Your task to perform on an android device: How much does a 3 bedroom apartment rent for in Boston? Image 0: 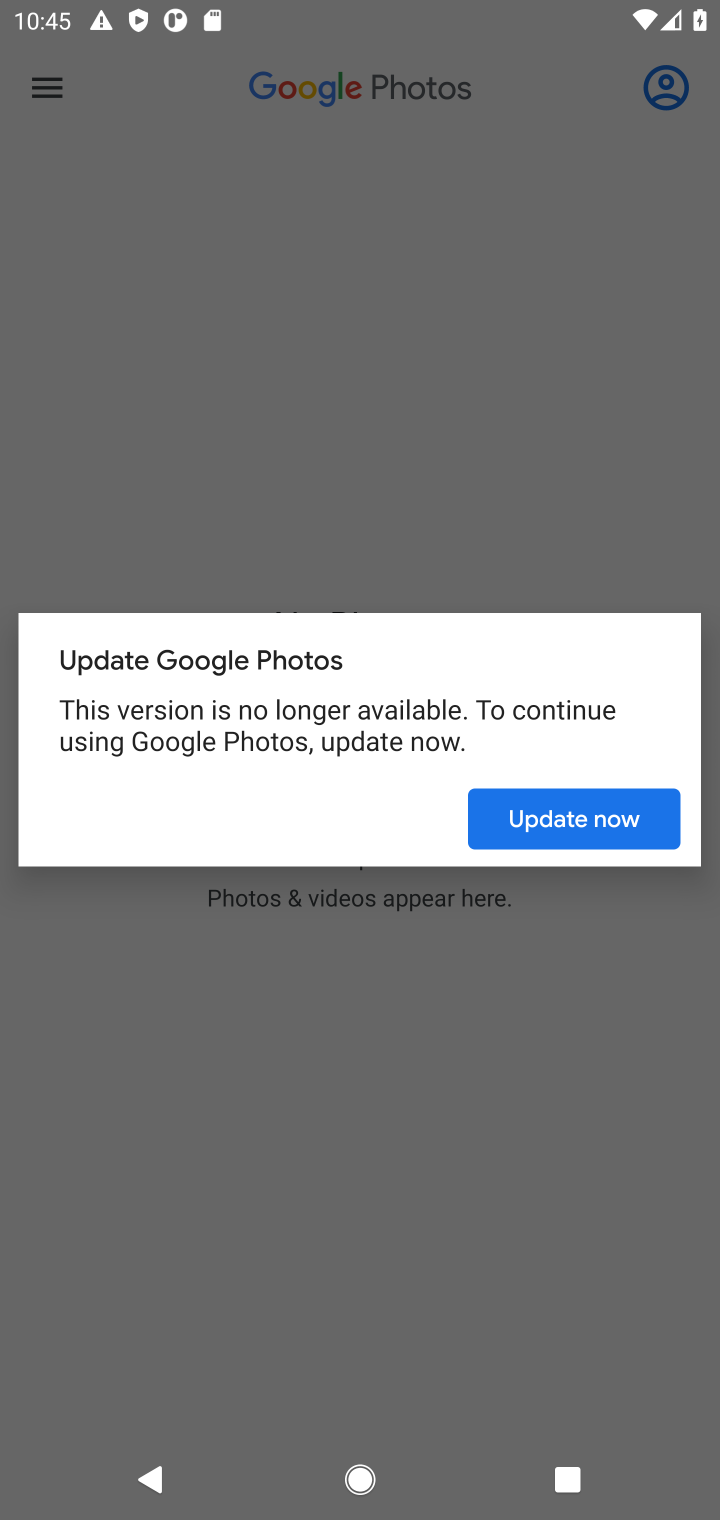
Step 0: click (610, 819)
Your task to perform on an android device: How much does a 3 bedroom apartment rent for in Boston? Image 1: 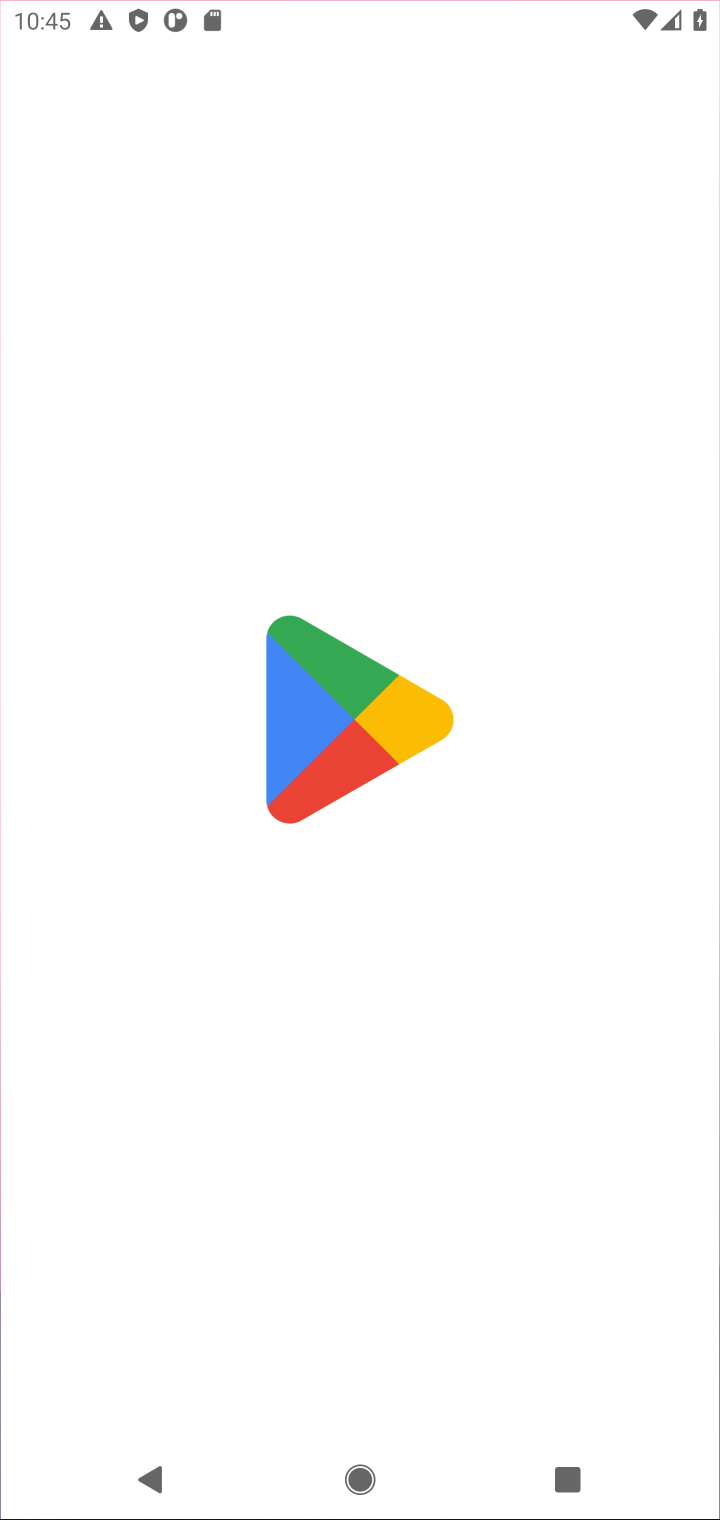
Step 1: press home button
Your task to perform on an android device: How much does a 3 bedroom apartment rent for in Boston? Image 2: 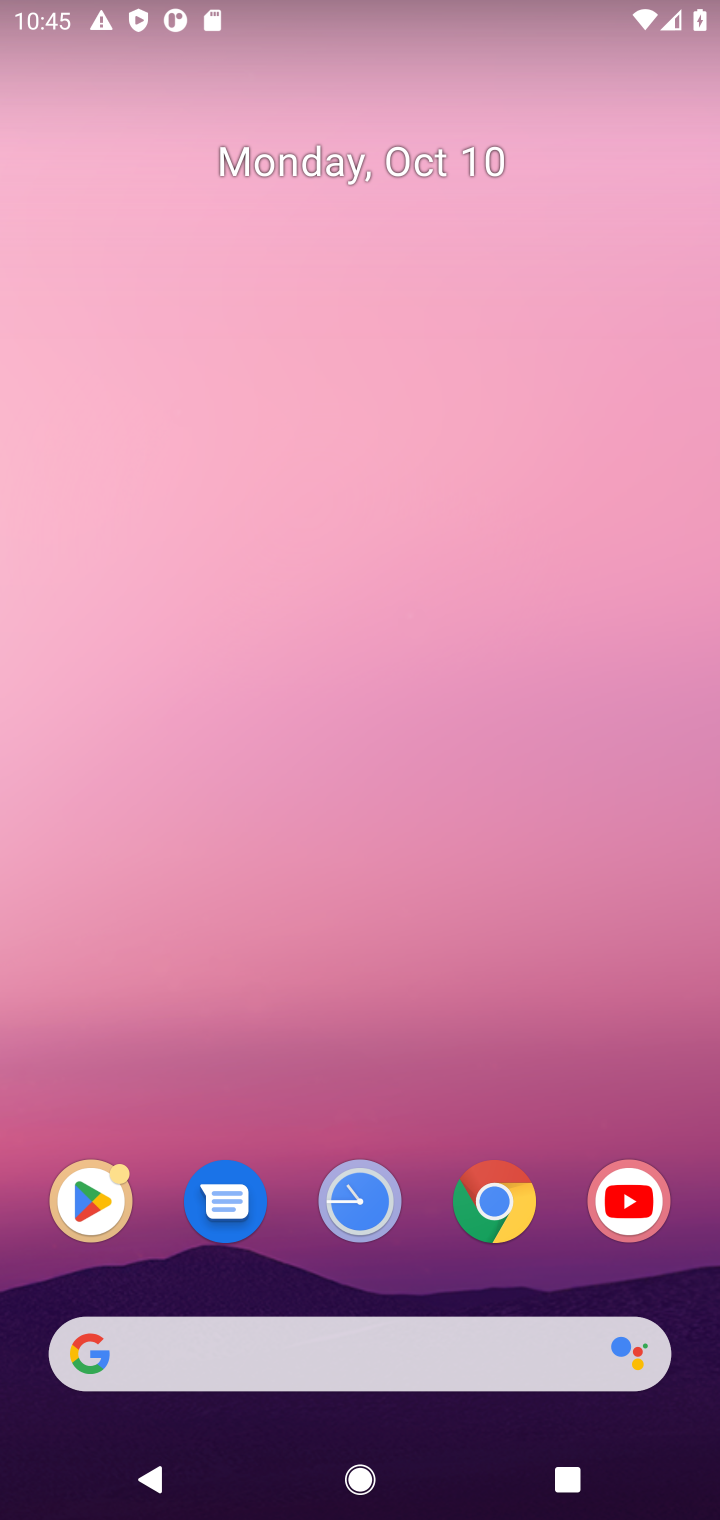
Step 2: click (84, 1353)
Your task to perform on an android device: How much does a 3 bedroom apartment rent for in Boston? Image 3: 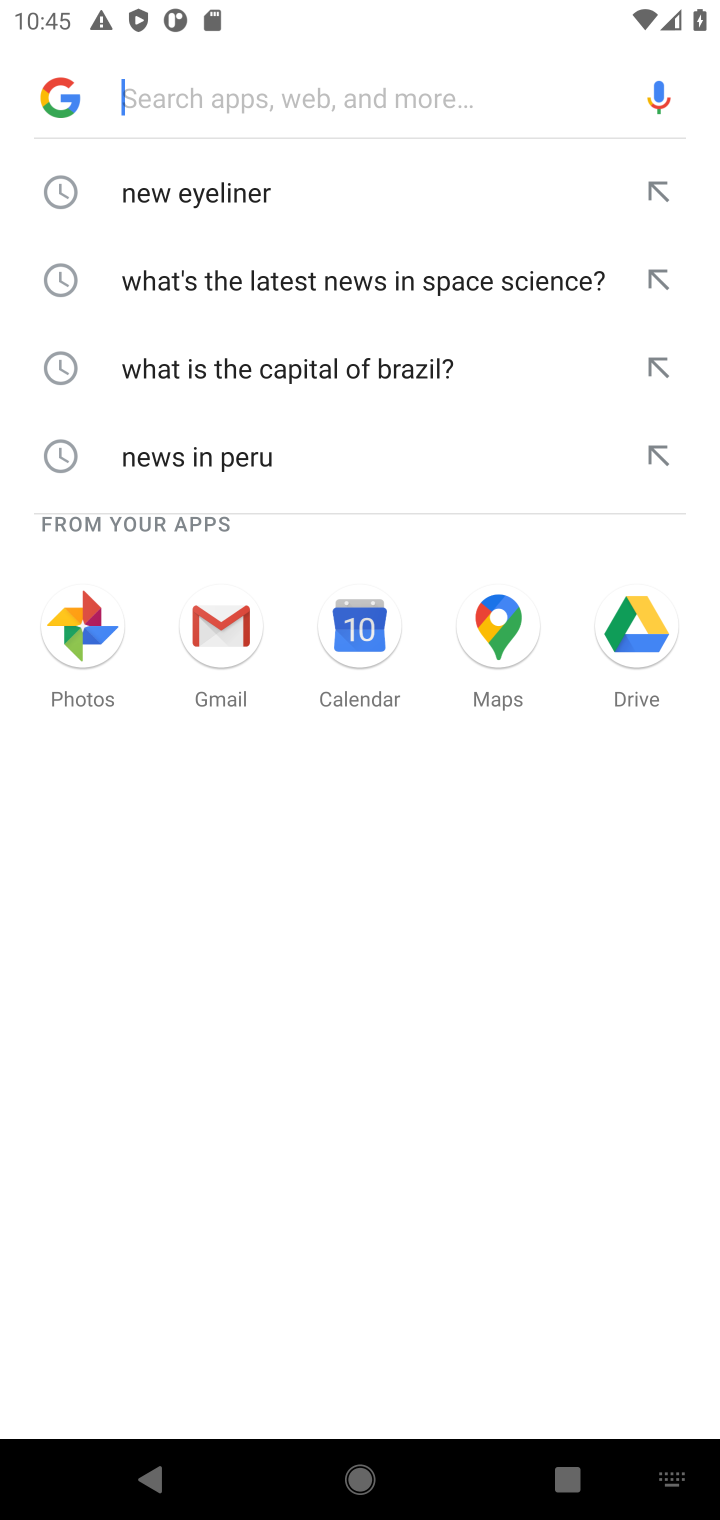
Step 3: type "How much does a 3 bedroom apartment rent for in Boston?"
Your task to perform on an android device: How much does a 3 bedroom apartment rent for in Boston? Image 4: 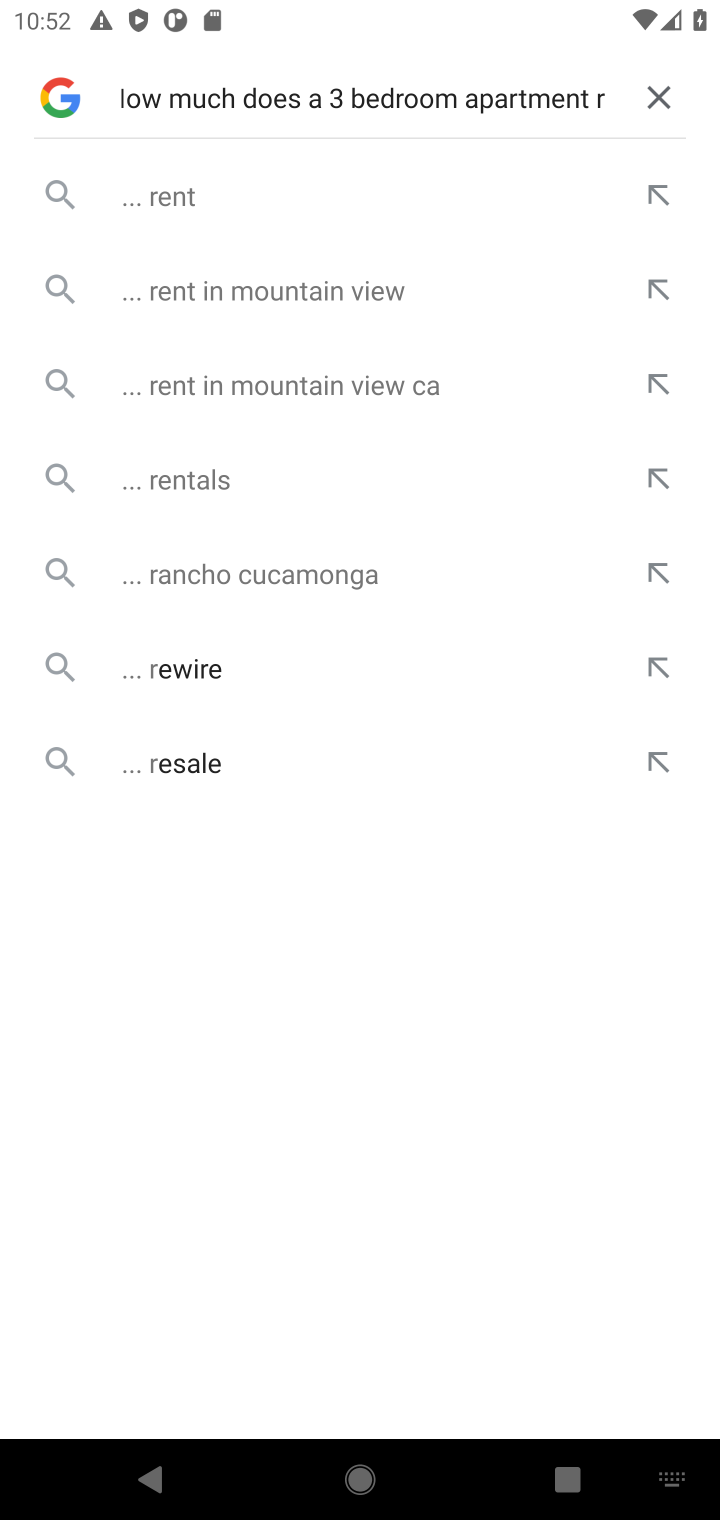
Step 4: task complete